Your task to perform on an android device: toggle javascript in the chrome app Image 0: 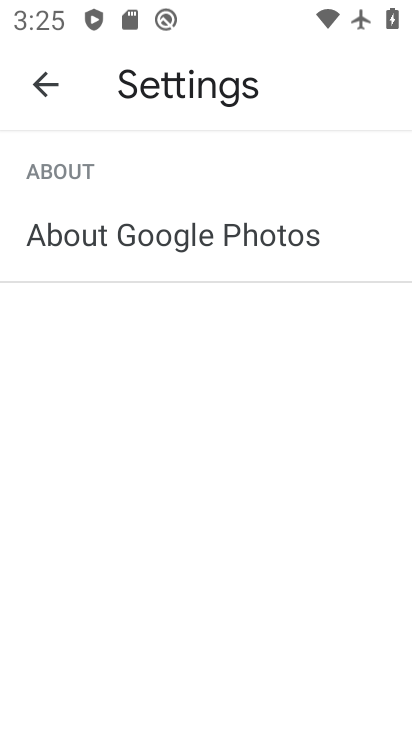
Step 0: drag from (252, 626) to (191, 34)
Your task to perform on an android device: toggle javascript in the chrome app Image 1: 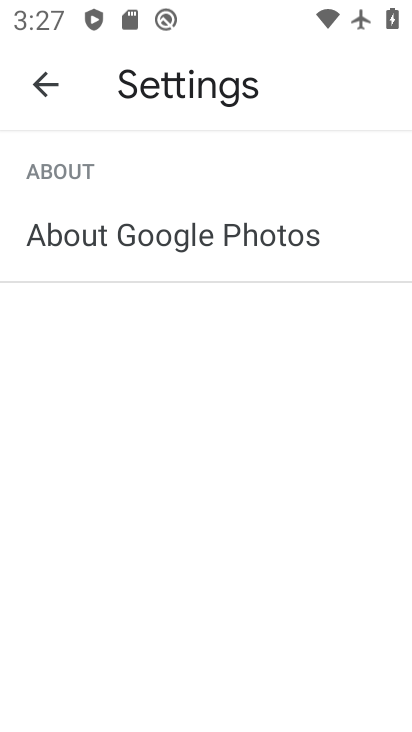
Step 1: click (45, 87)
Your task to perform on an android device: toggle javascript in the chrome app Image 2: 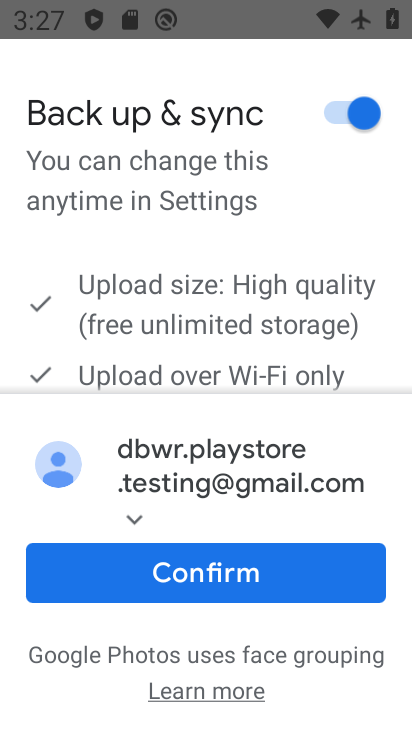
Step 2: click (197, 588)
Your task to perform on an android device: toggle javascript in the chrome app Image 3: 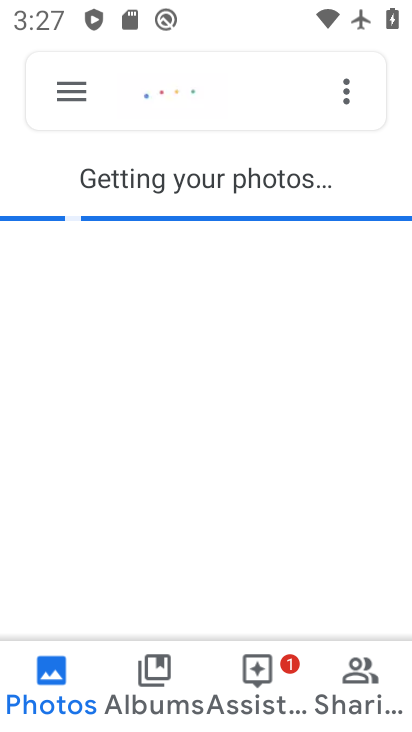
Step 3: press home button
Your task to perform on an android device: toggle javascript in the chrome app Image 4: 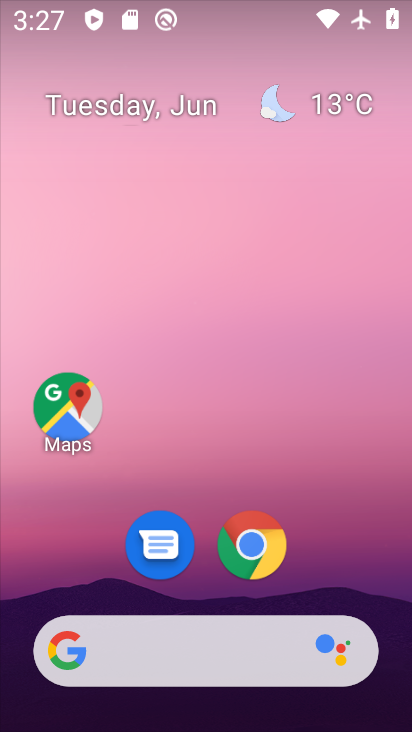
Step 4: drag from (216, 645) to (210, 137)
Your task to perform on an android device: toggle javascript in the chrome app Image 5: 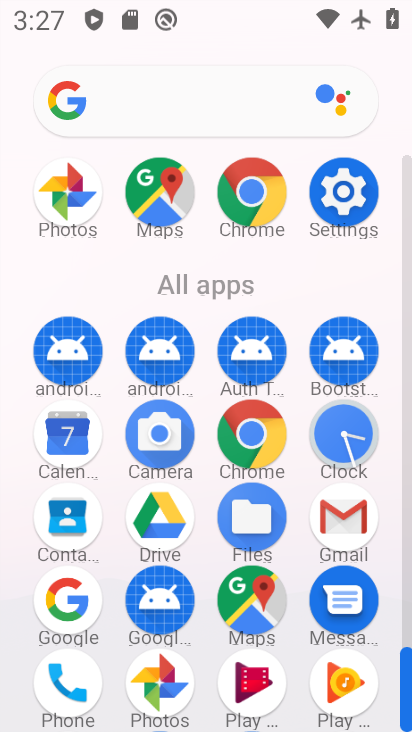
Step 5: click (227, 196)
Your task to perform on an android device: toggle javascript in the chrome app Image 6: 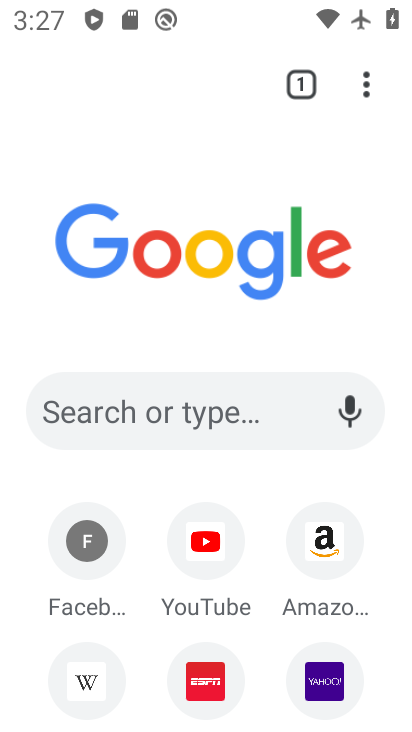
Step 6: drag from (361, 94) to (90, 599)
Your task to perform on an android device: toggle javascript in the chrome app Image 7: 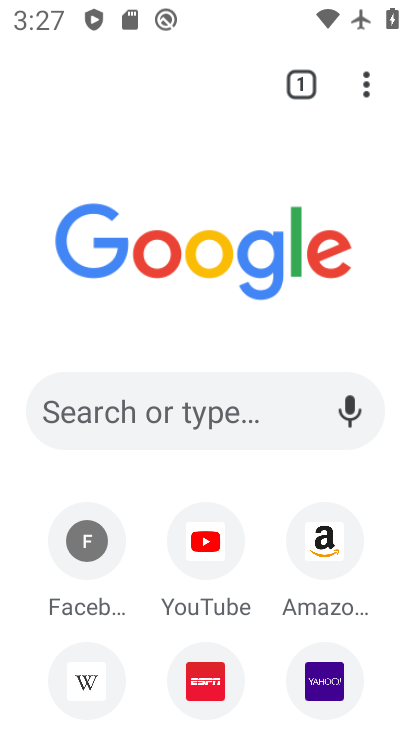
Step 7: click (91, 600)
Your task to perform on an android device: toggle javascript in the chrome app Image 8: 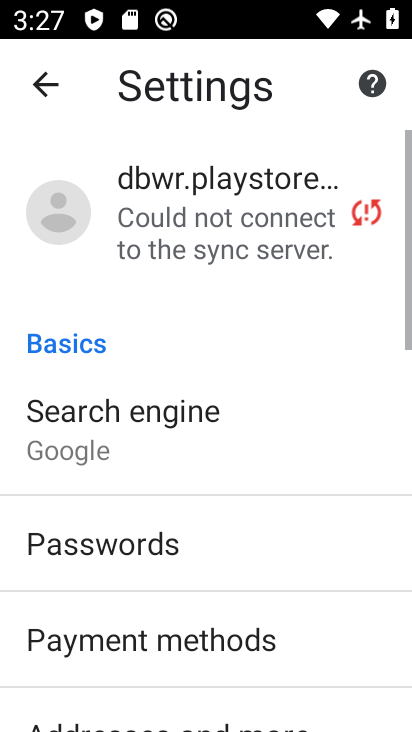
Step 8: drag from (148, 547) to (173, 104)
Your task to perform on an android device: toggle javascript in the chrome app Image 9: 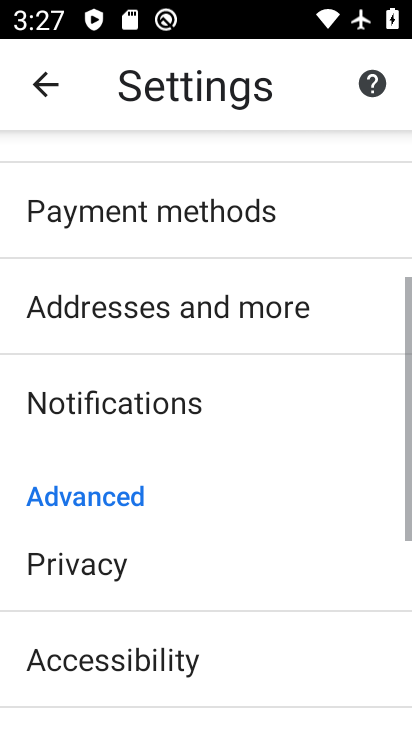
Step 9: drag from (167, 488) to (182, 134)
Your task to perform on an android device: toggle javascript in the chrome app Image 10: 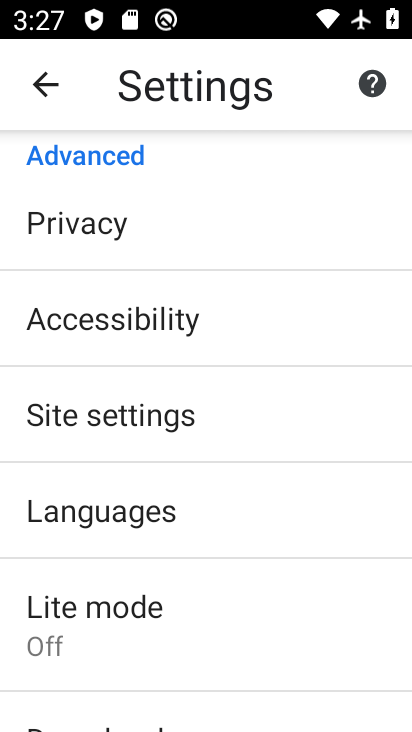
Step 10: click (82, 422)
Your task to perform on an android device: toggle javascript in the chrome app Image 11: 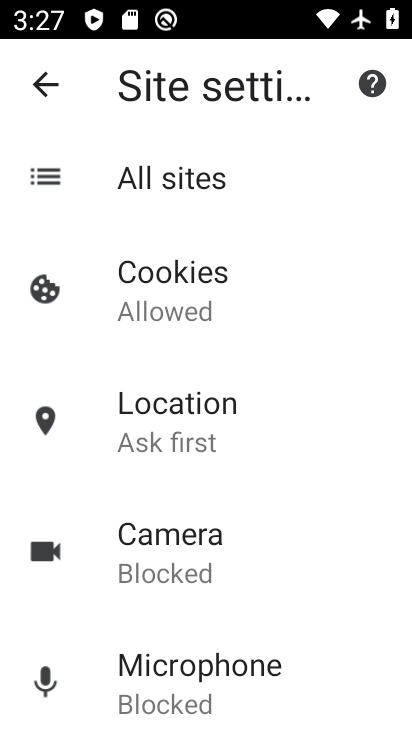
Step 11: drag from (146, 544) to (89, 236)
Your task to perform on an android device: toggle javascript in the chrome app Image 12: 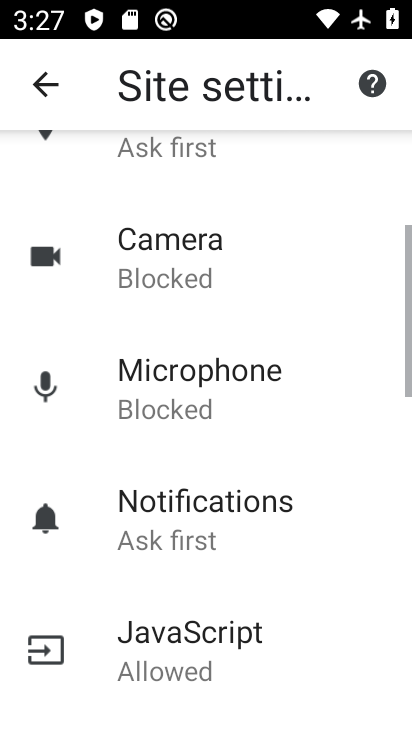
Step 12: drag from (247, 475) to (194, 220)
Your task to perform on an android device: toggle javascript in the chrome app Image 13: 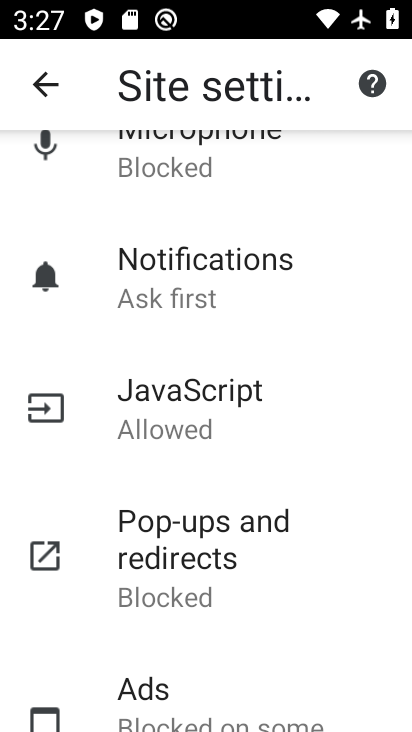
Step 13: click (151, 408)
Your task to perform on an android device: toggle javascript in the chrome app Image 14: 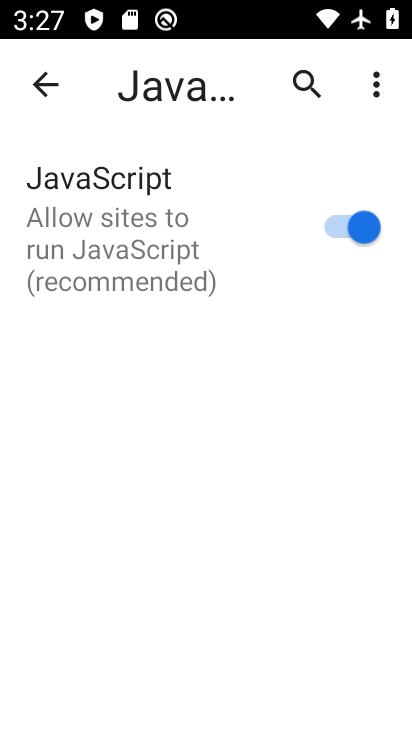
Step 14: task complete